Your task to perform on an android device: Go to accessibility settings Image 0: 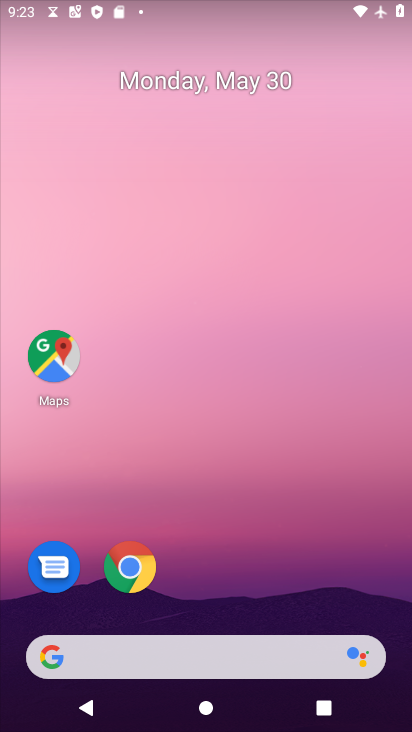
Step 0: drag from (257, 601) to (251, 143)
Your task to perform on an android device: Go to accessibility settings Image 1: 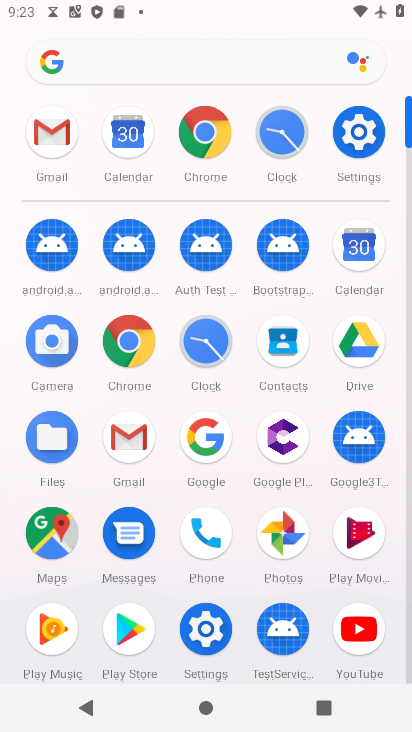
Step 1: click (363, 141)
Your task to perform on an android device: Go to accessibility settings Image 2: 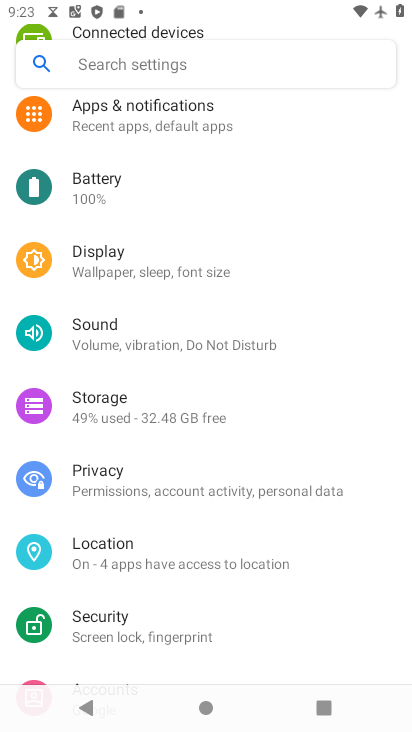
Step 2: drag from (171, 601) to (122, 180)
Your task to perform on an android device: Go to accessibility settings Image 3: 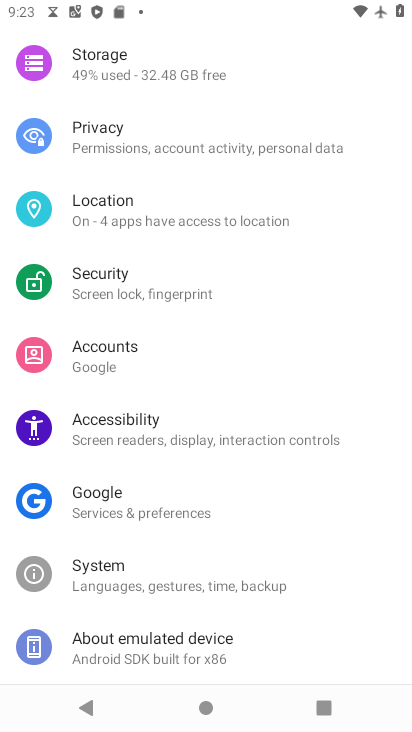
Step 3: click (201, 441)
Your task to perform on an android device: Go to accessibility settings Image 4: 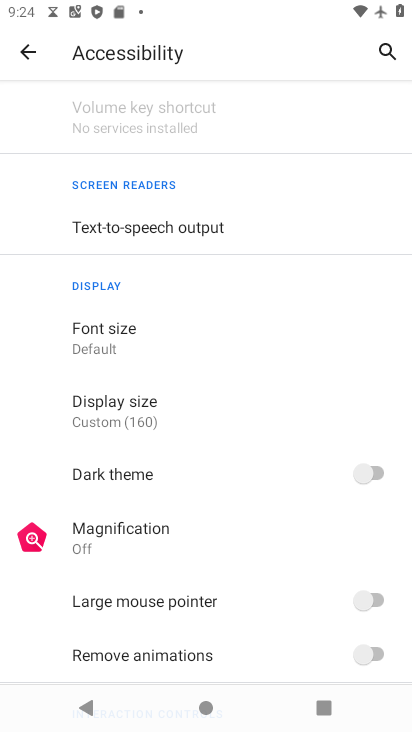
Step 4: task complete